Your task to perform on an android device: open a new tab in the chrome app Image 0: 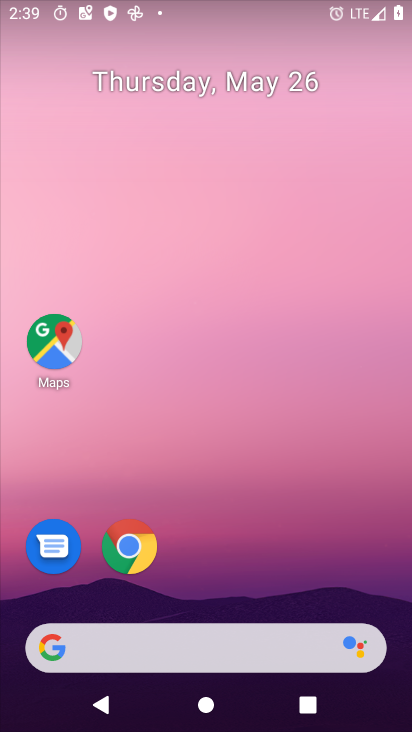
Step 0: click (134, 545)
Your task to perform on an android device: open a new tab in the chrome app Image 1: 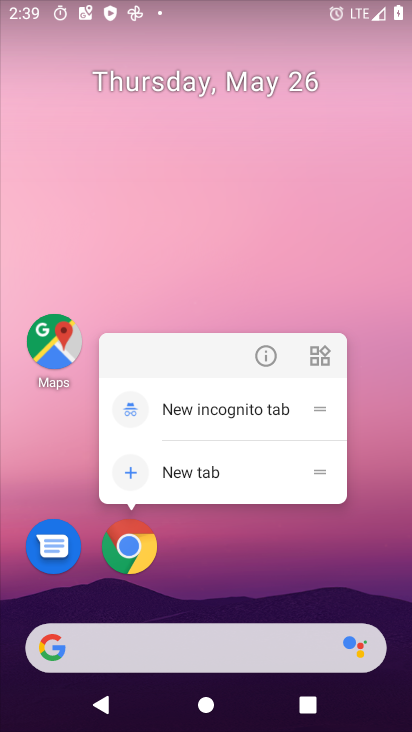
Step 1: click (134, 545)
Your task to perform on an android device: open a new tab in the chrome app Image 2: 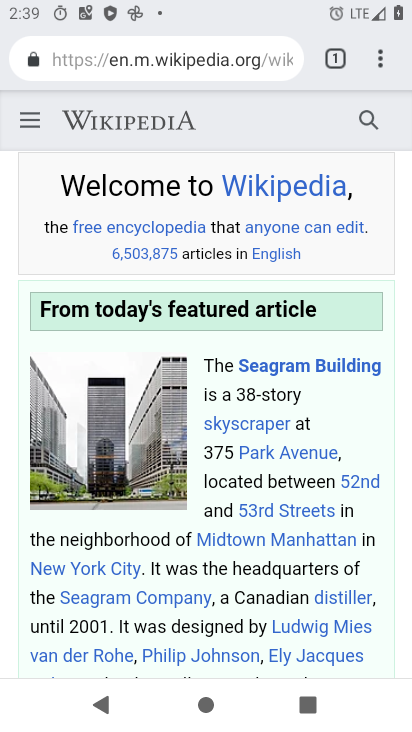
Step 2: click (338, 52)
Your task to perform on an android device: open a new tab in the chrome app Image 3: 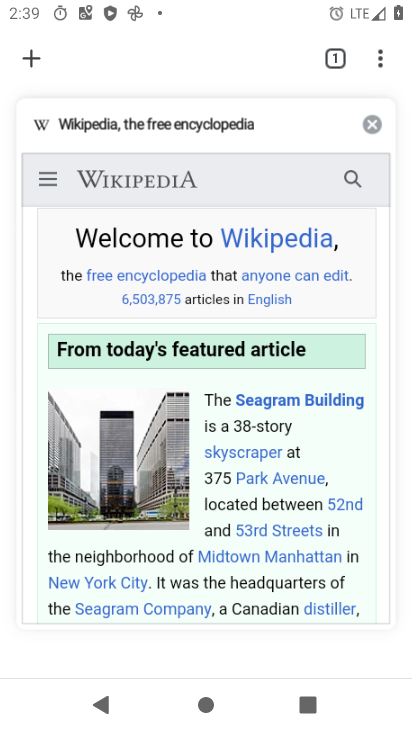
Step 3: click (29, 65)
Your task to perform on an android device: open a new tab in the chrome app Image 4: 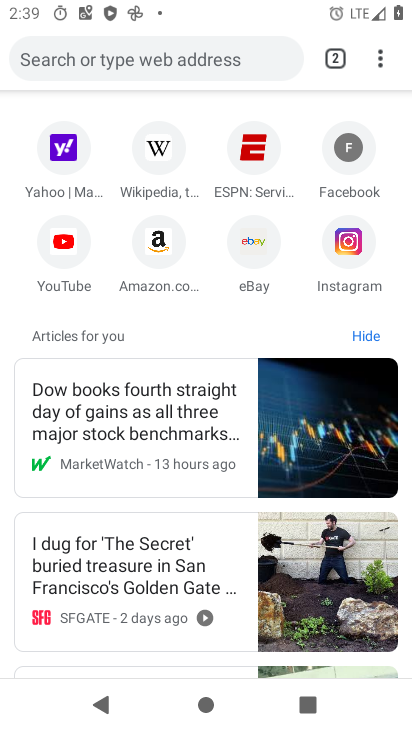
Step 4: task complete